Your task to perform on an android device: Search for alienware aurora on bestbuy, select the first entry, add it to the cart, then select checkout. Image 0: 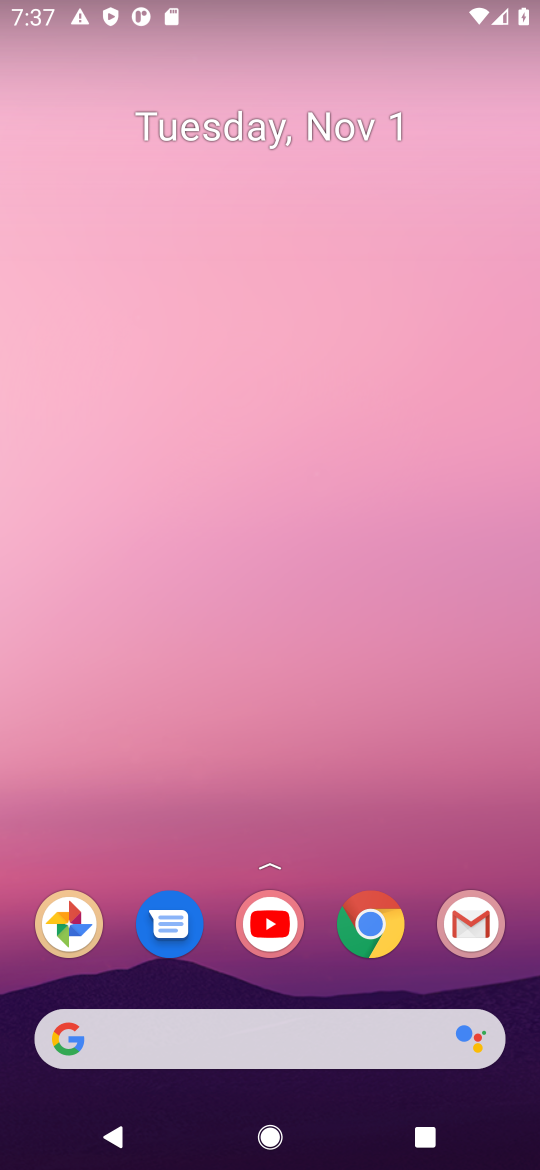
Step 0: press home button
Your task to perform on an android device: Search for alienware aurora on bestbuy, select the first entry, add it to the cart, then select checkout. Image 1: 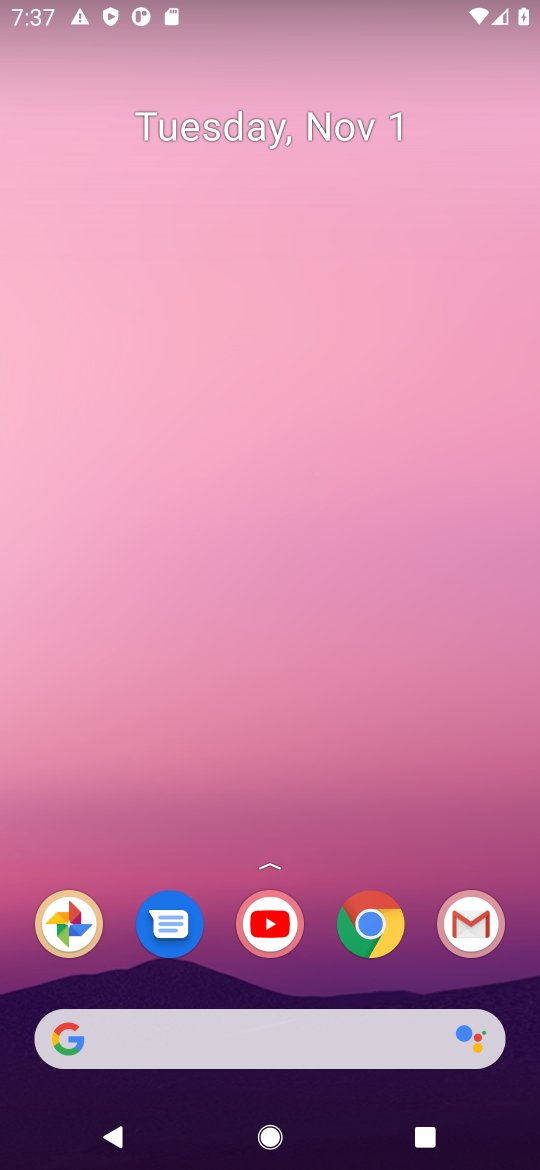
Step 1: click (107, 1043)
Your task to perform on an android device: Search for alienware aurora on bestbuy, select the first entry, add it to the cart, then select checkout. Image 2: 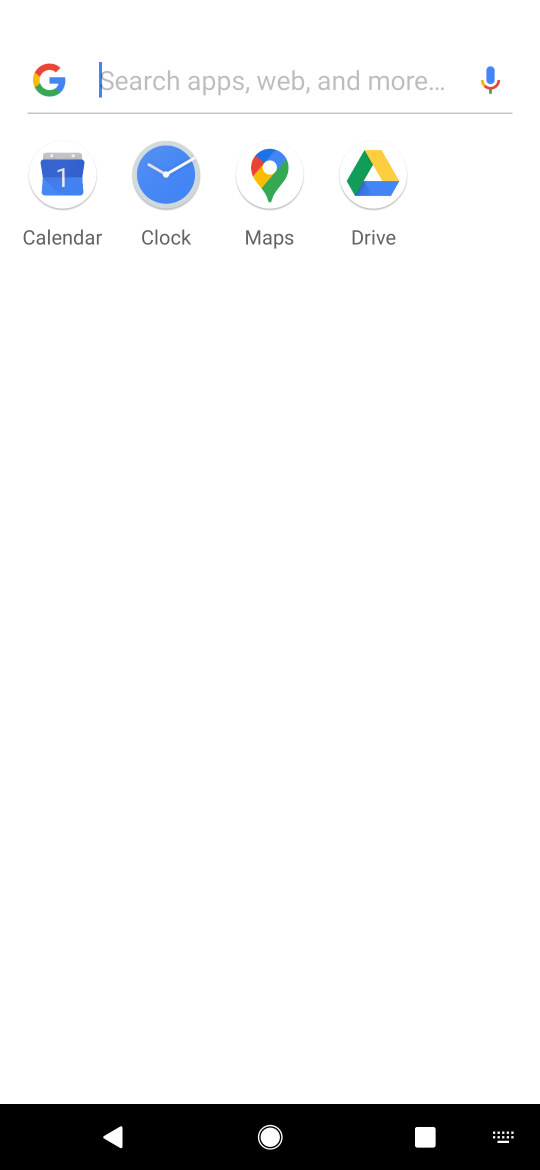
Step 2: type " bestbuy,"
Your task to perform on an android device: Search for alienware aurora on bestbuy, select the first entry, add it to the cart, then select checkout. Image 3: 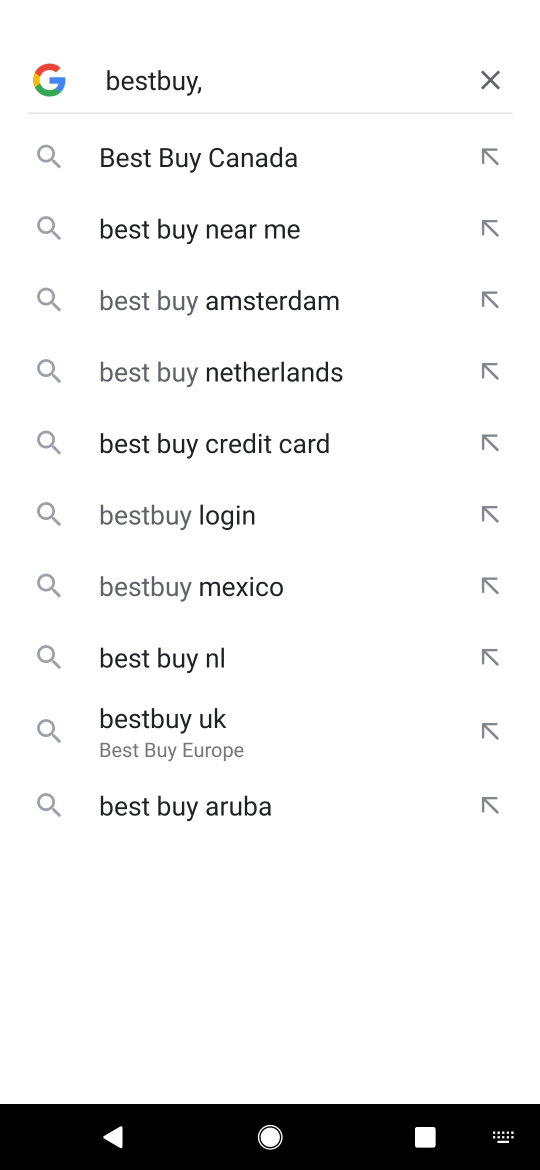
Step 3: press enter
Your task to perform on an android device: Search for alienware aurora on bestbuy, select the first entry, add it to the cart, then select checkout. Image 4: 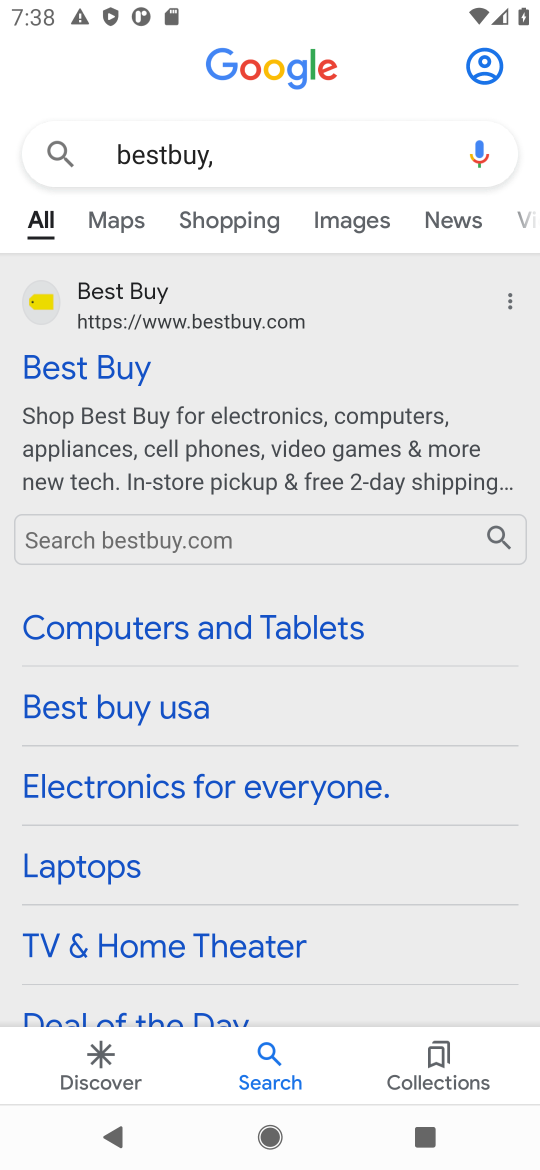
Step 4: click (100, 365)
Your task to perform on an android device: Search for alienware aurora on bestbuy, select the first entry, add it to the cart, then select checkout. Image 5: 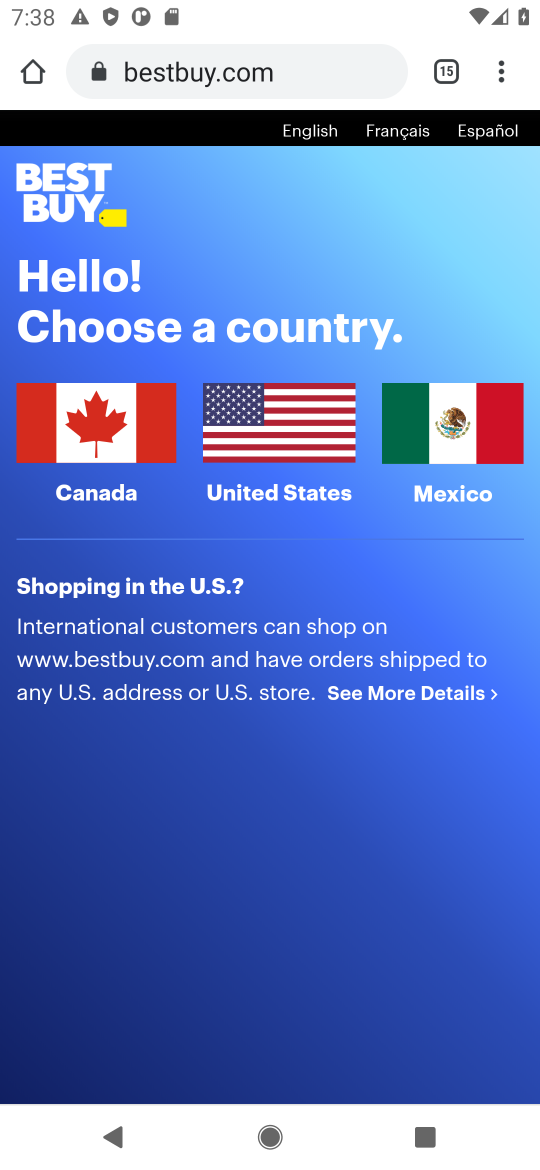
Step 5: click (95, 417)
Your task to perform on an android device: Search for alienware aurora on bestbuy, select the first entry, add it to the cart, then select checkout. Image 6: 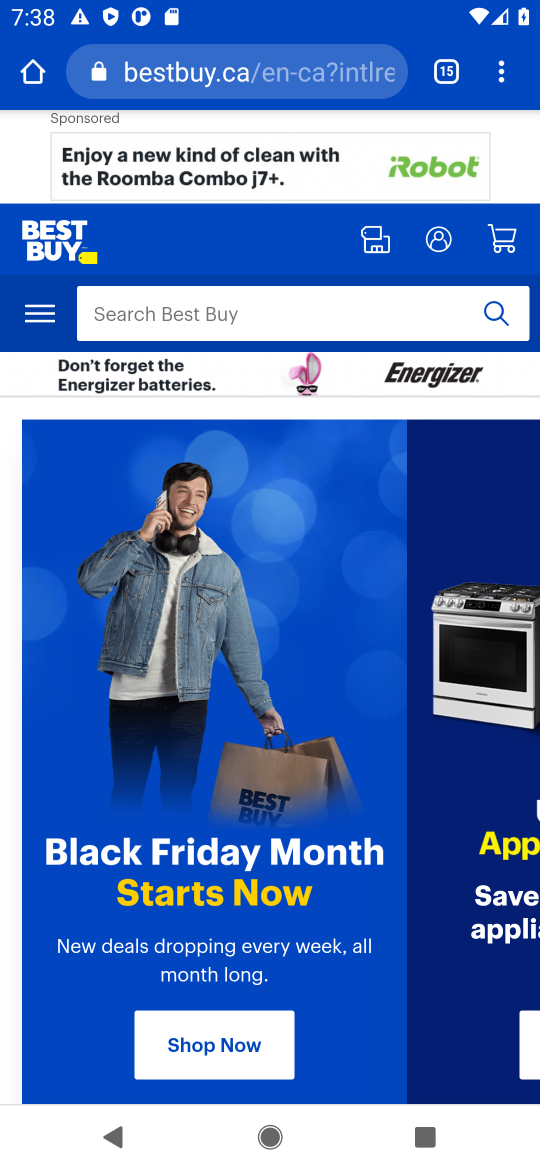
Step 6: click (147, 307)
Your task to perform on an android device: Search for alienware aurora on bestbuy, select the first entry, add it to the cart, then select checkout. Image 7: 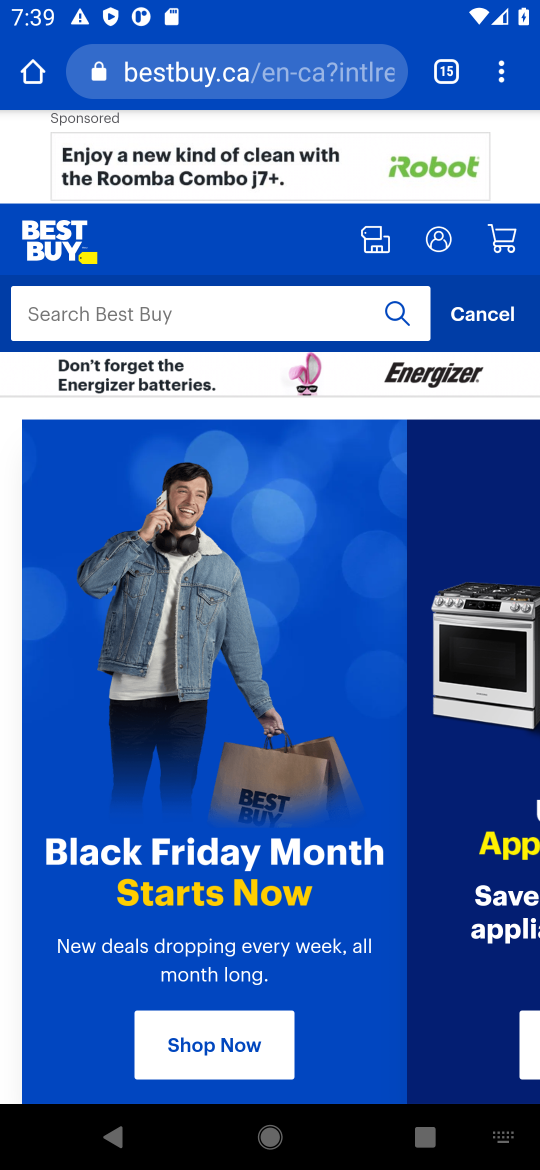
Step 7: type "alienware aurora"
Your task to perform on an android device: Search for alienware aurora on bestbuy, select the first entry, add it to the cart, then select checkout. Image 8: 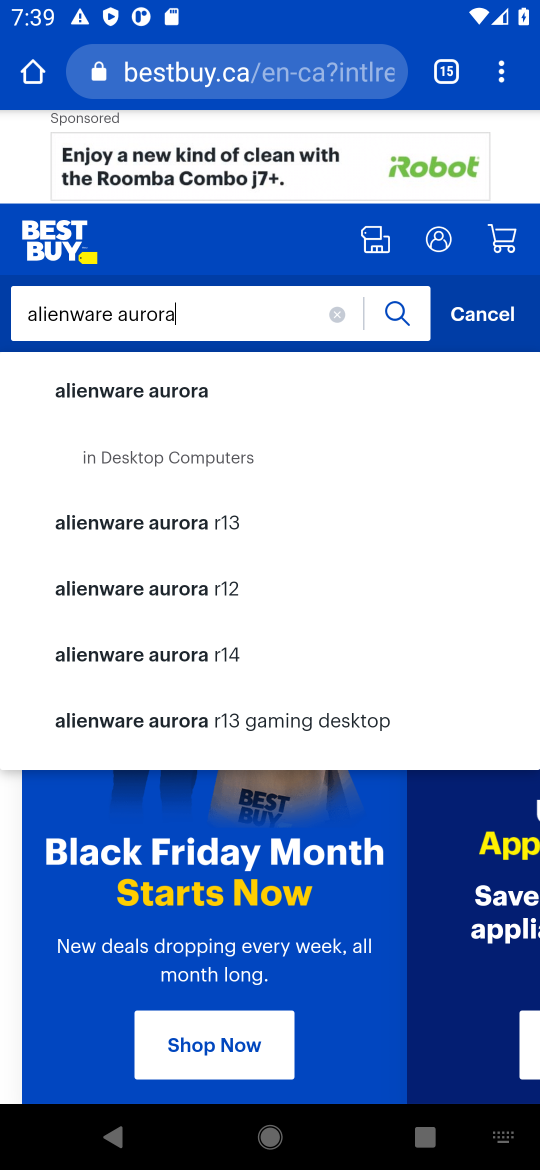
Step 8: press enter
Your task to perform on an android device: Search for alienware aurora on bestbuy, select the first entry, add it to the cart, then select checkout. Image 9: 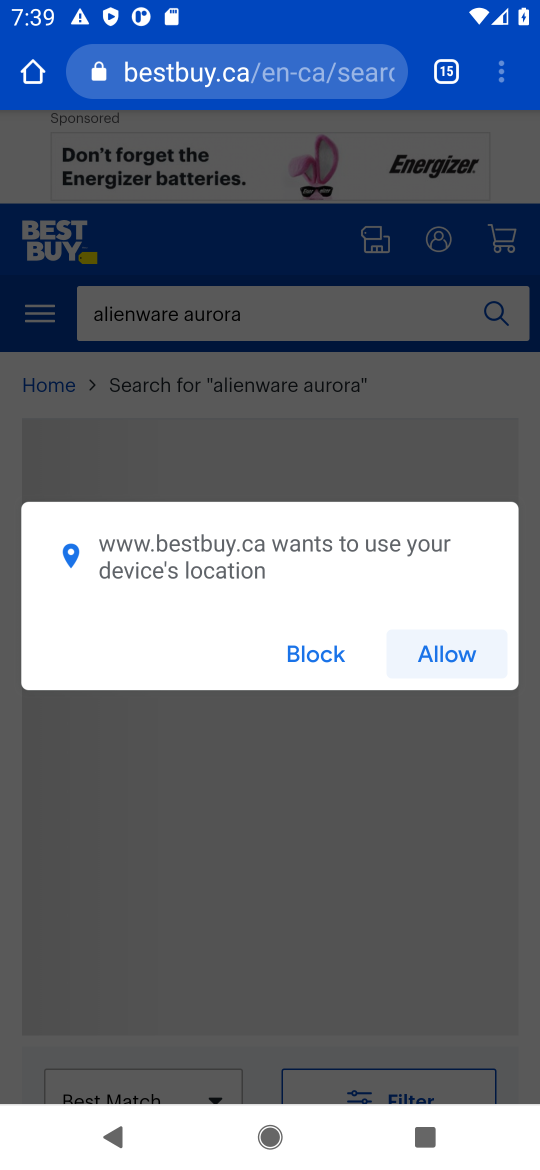
Step 9: click (294, 659)
Your task to perform on an android device: Search for alienware aurora on bestbuy, select the first entry, add it to the cart, then select checkout. Image 10: 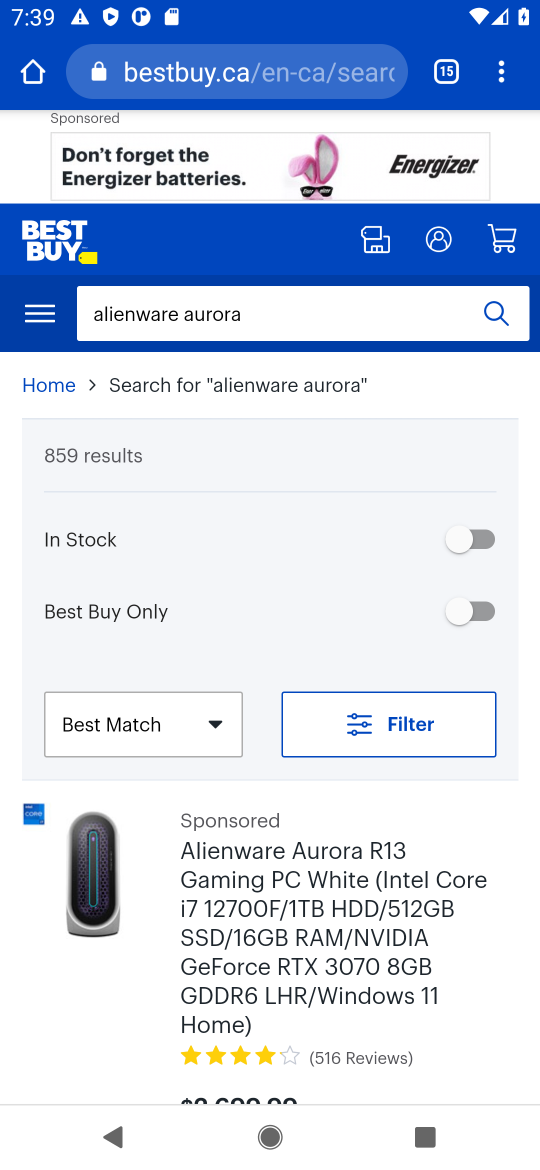
Step 10: drag from (322, 922) to (368, 445)
Your task to perform on an android device: Search for alienware aurora on bestbuy, select the first entry, add it to the cart, then select checkout. Image 11: 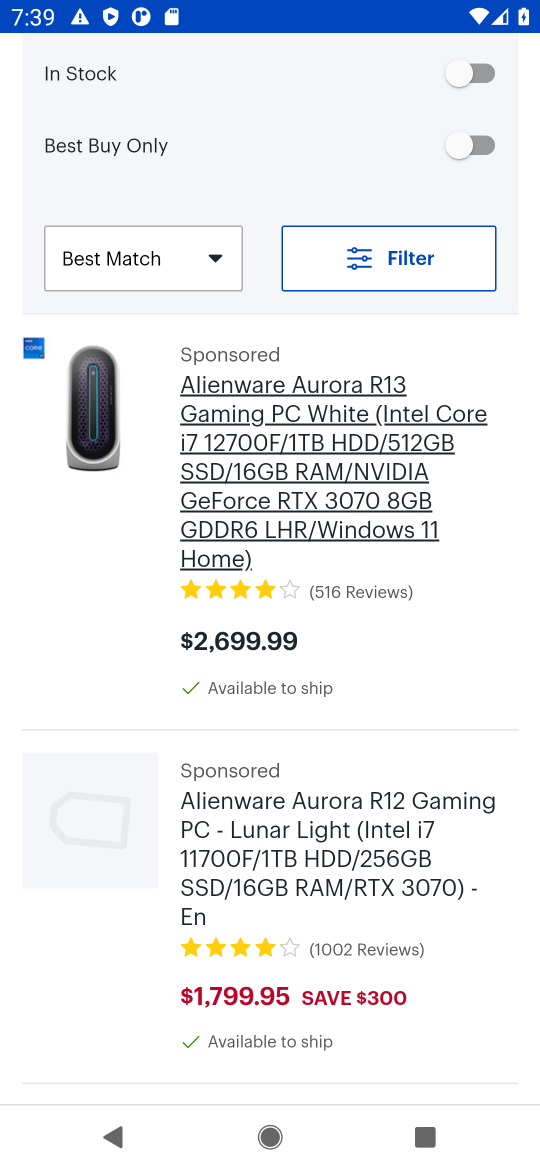
Step 11: click (320, 438)
Your task to perform on an android device: Search for alienware aurora on bestbuy, select the first entry, add it to the cart, then select checkout. Image 12: 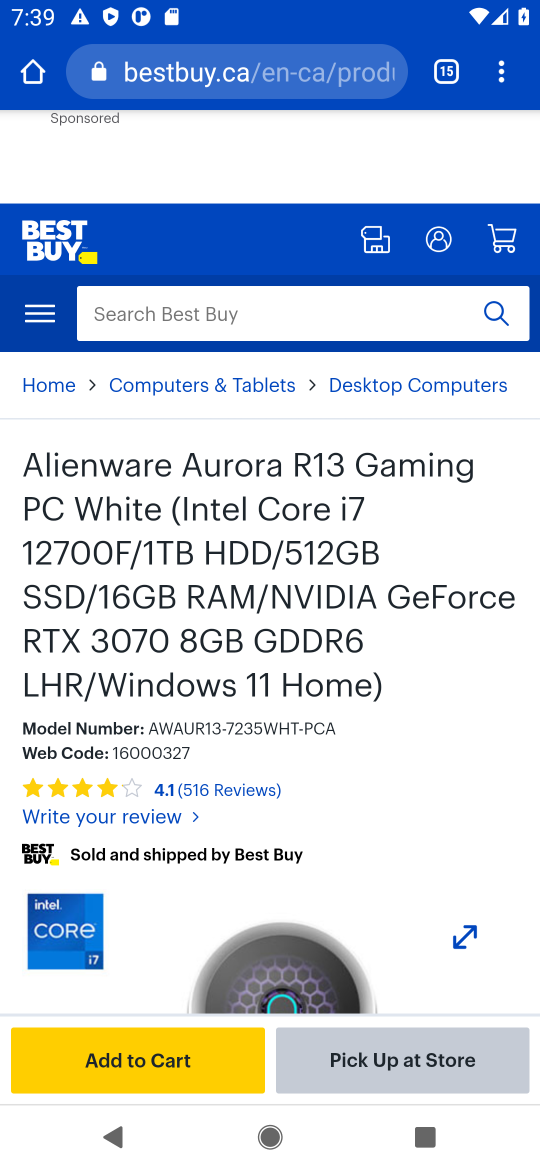
Step 12: drag from (89, 898) to (150, 552)
Your task to perform on an android device: Search for alienware aurora on bestbuy, select the first entry, add it to the cart, then select checkout. Image 13: 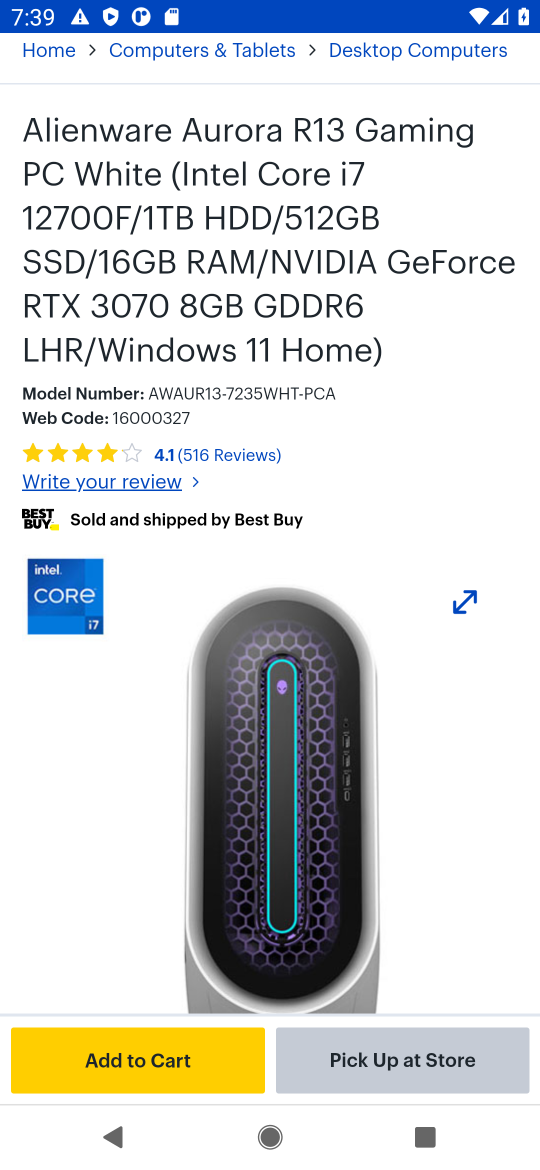
Step 13: click (111, 1062)
Your task to perform on an android device: Search for alienware aurora on bestbuy, select the first entry, add it to the cart, then select checkout. Image 14: 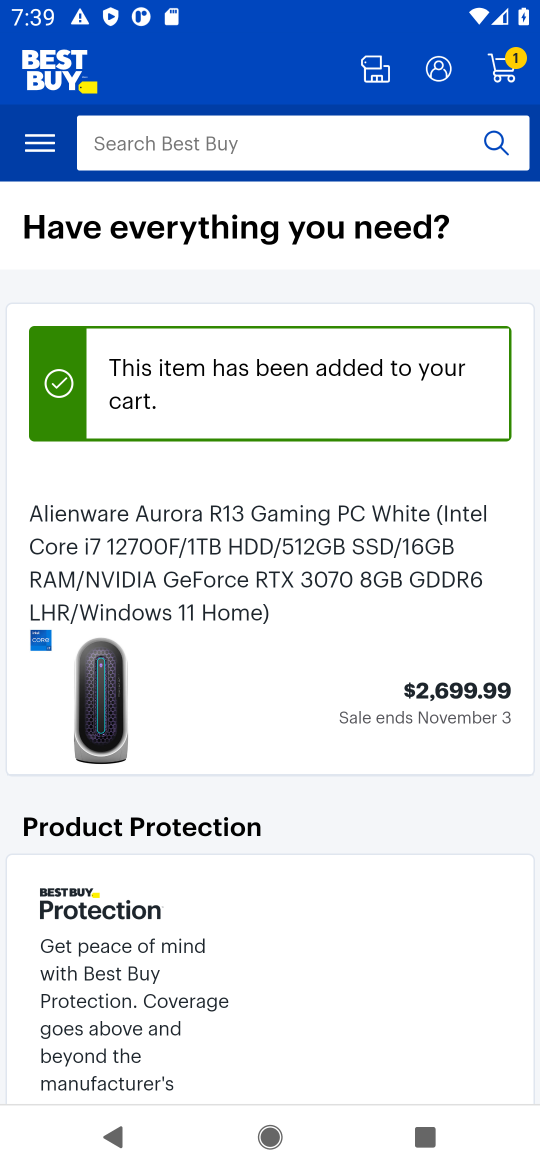
Step 14: click (511, 72)
Your task to perform on an android device: Search for alienware aurora on bestbuy, select the first entry, add it to the cart, then select checkout. Image 15: 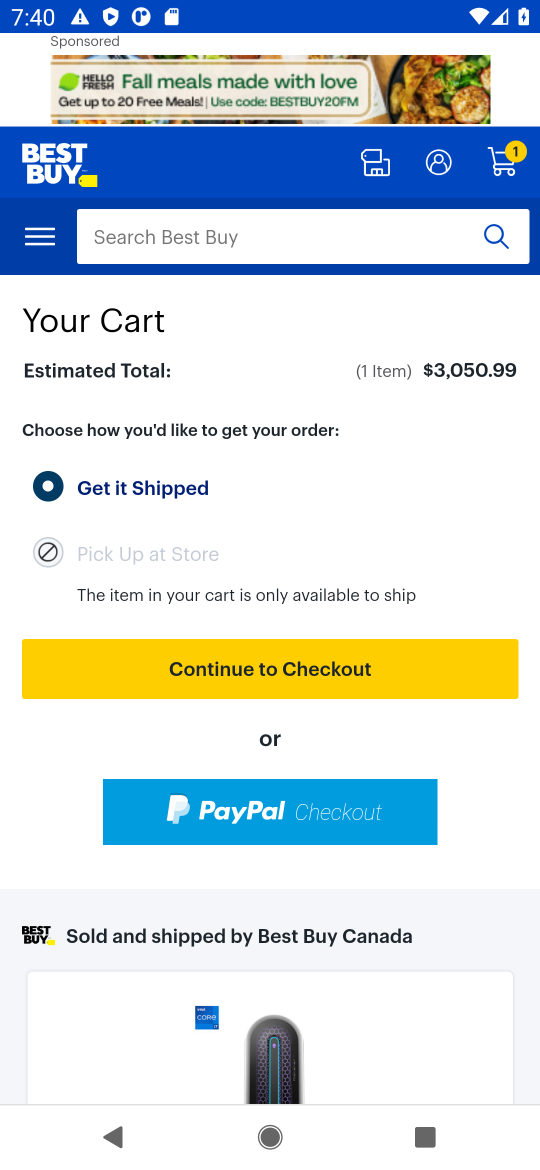
Step 15: click (298, 676)
Your task to perform on an android device: Search for alienware aurora on bestbuy, select the first entry, add it to the cart, then select checkout. Image 16: 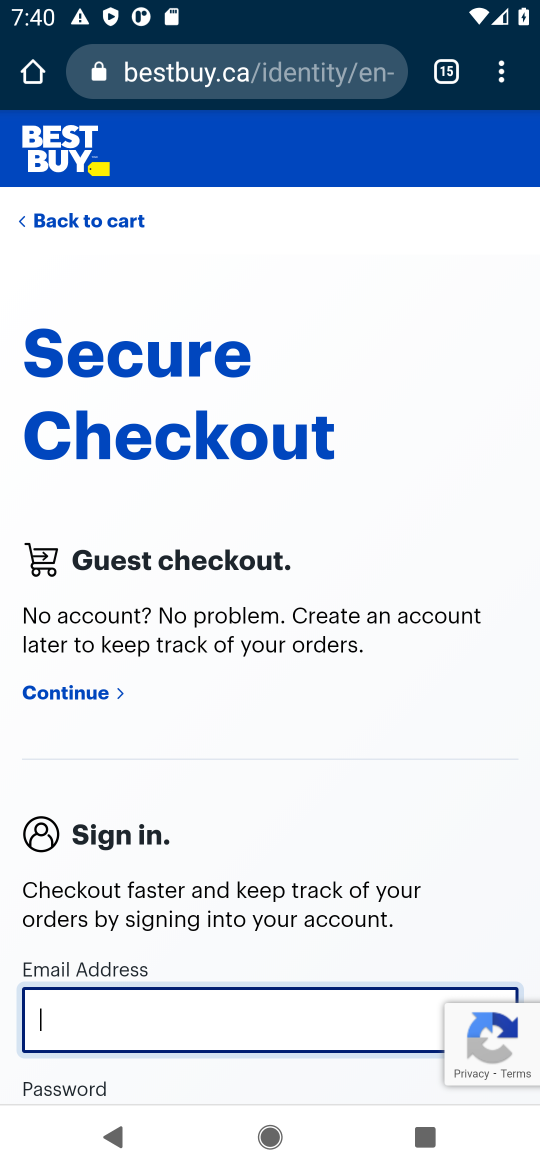
Step 16: task complete